Your task to perform on an android device: show emergency info Image 0: 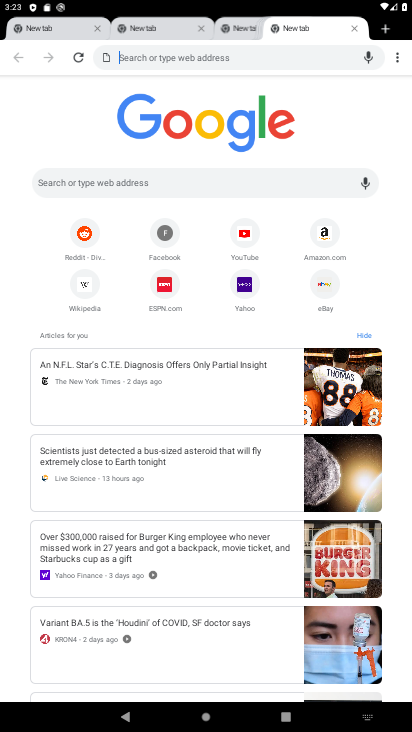
Step 0: press home button
Your task to perform on an android device: show emergency info Image 1: 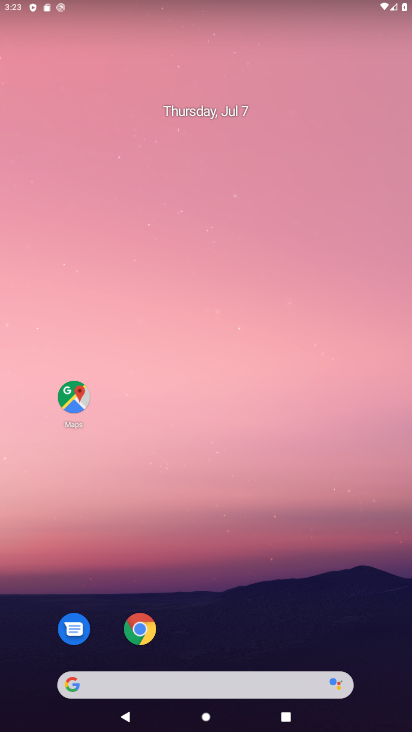
Step 1: drag from (29, 691) to (301, 13)
Your task to perform on an android device: show emergency info Image 2: 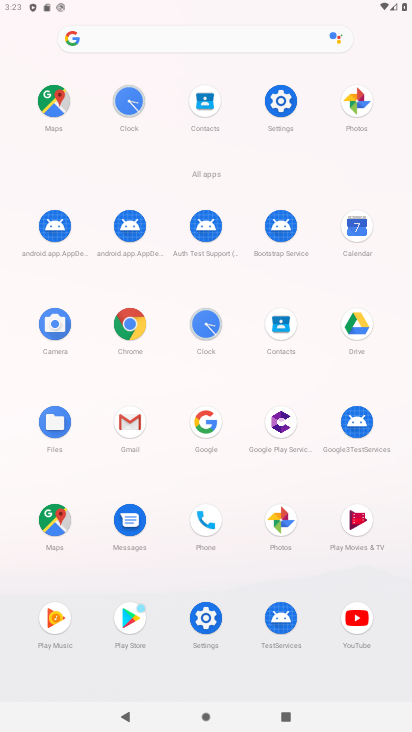
Step 2: click (200, 620)
Your task to perform on an android device: show emergency info Image 3: 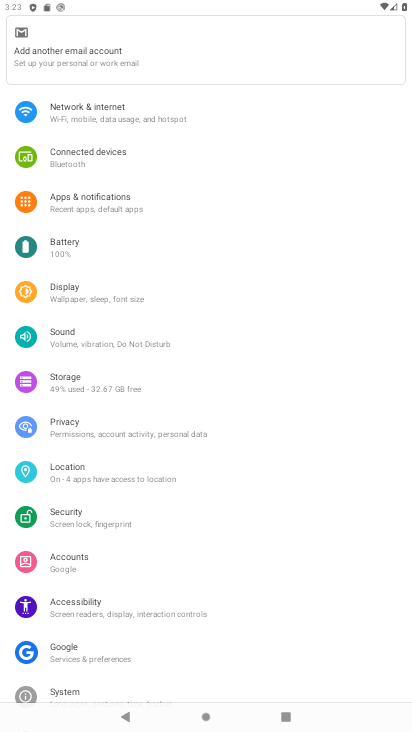
Step 3: drag from (202, 609) to (168, 237)
Your task to perform on an android device: show emergency info Image 4: 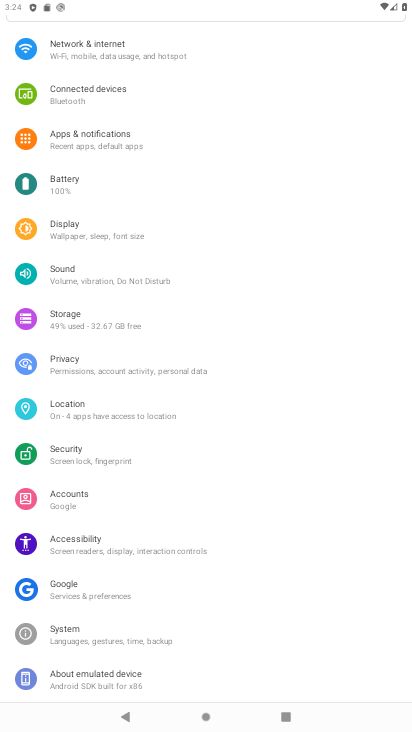
Step 4: drag from (193, 518) to (152, 49)
Your task to perform on an android device: show emergency info Image 5: 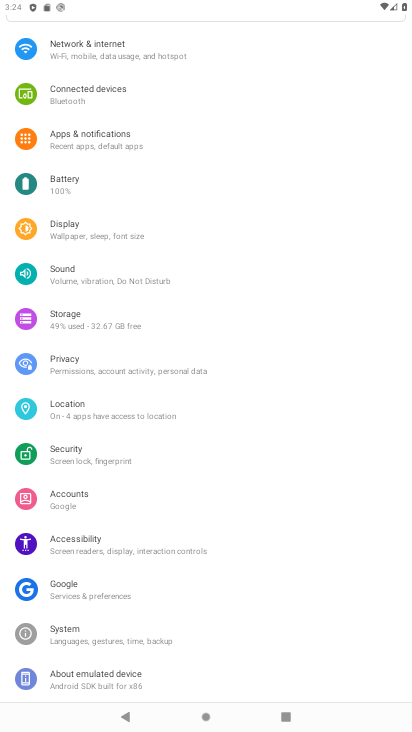
Step 5: click (83, 686)
Your task to perform on an android device: show emergency info Image 6: 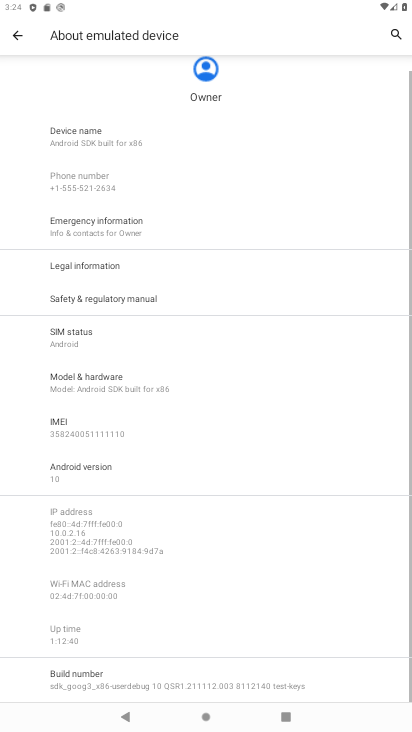
Step 6: click (89, 223)
Your task to perform on an android device: show emergency info Image 7: 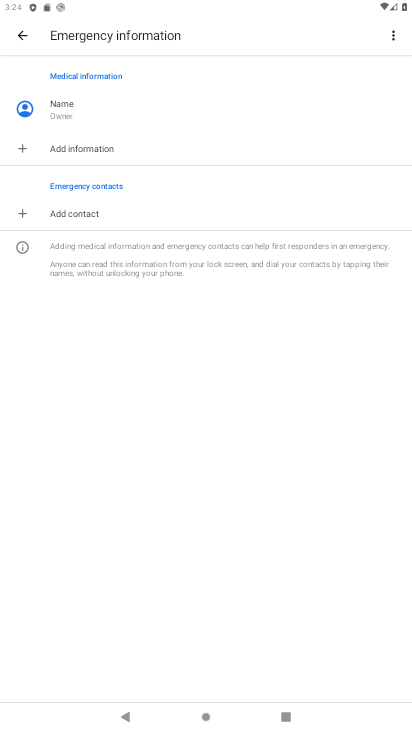
Step 7: task complete